Your task to perform on an android device: turn pop-ups off in chrome Image 0: 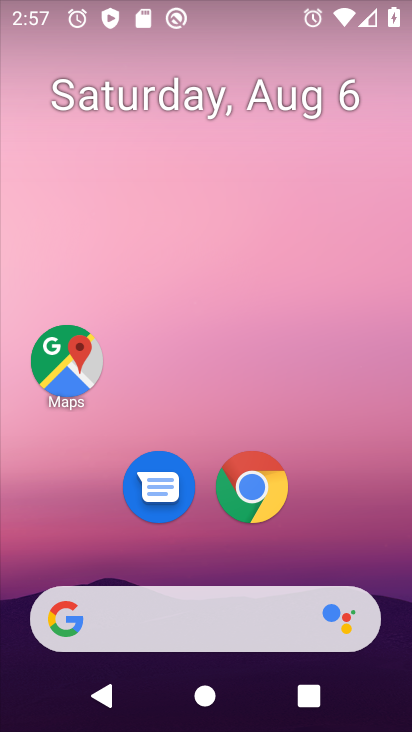
Step 0: click (265, 492)
Your task to perform on an android device: turn pop-ups off in chrome Image 1: 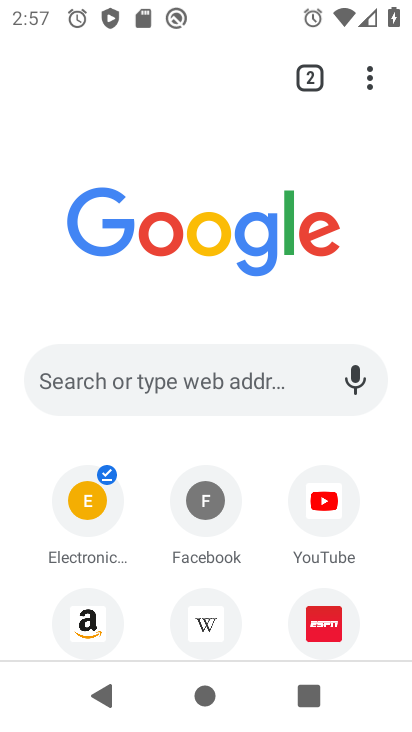
Step 1: drag from (372, 73) to (193, 557)
Your task to perform on an android device: turn pop-ups off in chrome Image 2: 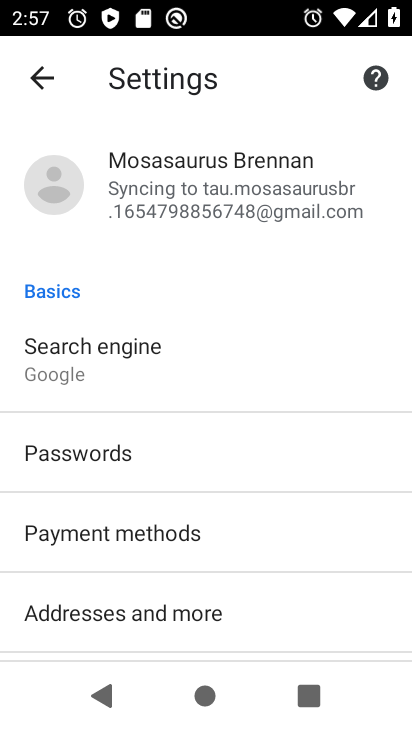
Step 2: drag from (135, 568) to (156, 195)
Your task to perform on an android device: turn pop-ups off in chrome Image 3: 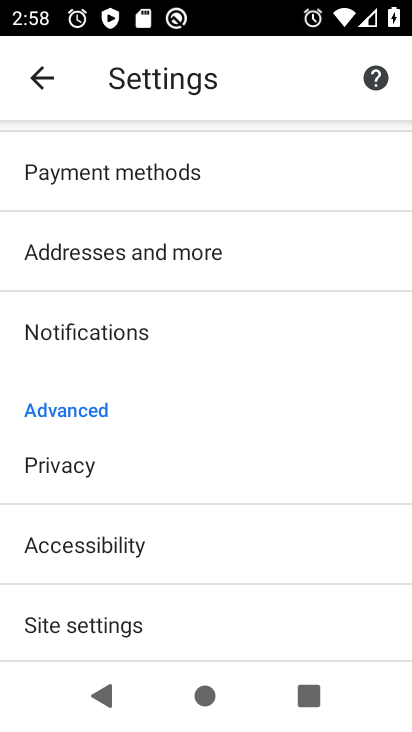
Step 3: click (191, 608)
Your task to perform on an android device: turn pop-ups off in chrome Image 4: 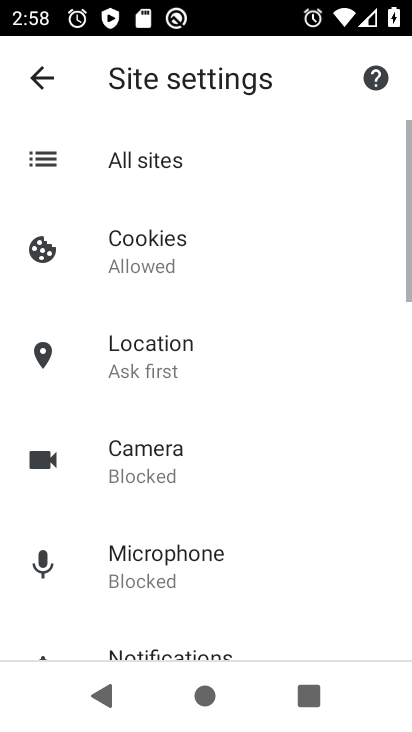
Step 4: drag from (201, 558) to (191, 112)
Your task to perform on an android device: turn pop-ups off in chrome Image 5: 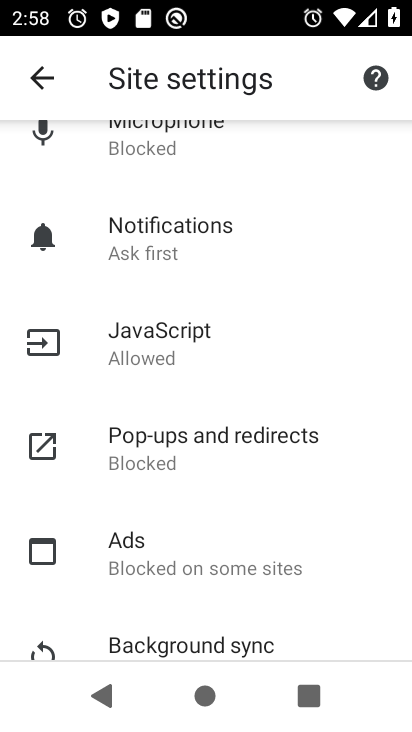
Step 5: click (195, 434)
Your task to perform on an android device: turn pop-ups off in chrome Image 6: 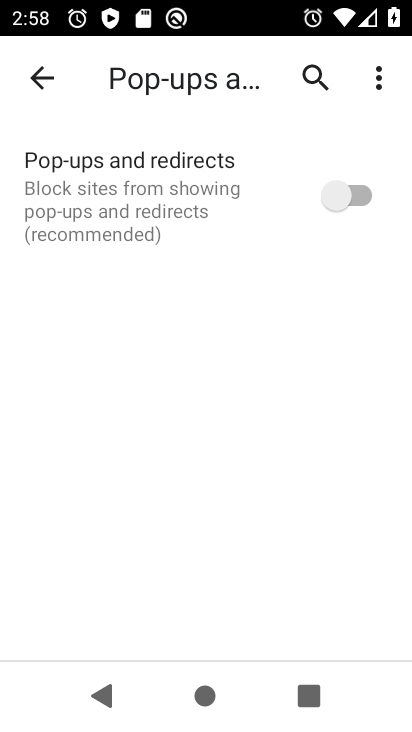
Step 6: task complete